Your task to perform on an android device: turn off priority inbox in the gmail app Image 0: 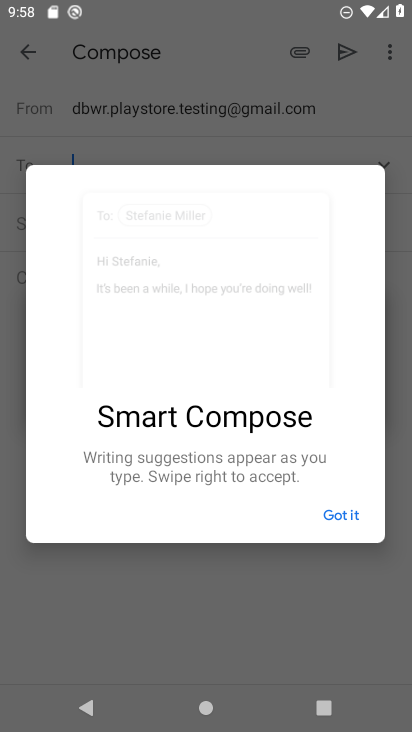
Step 0: press home button
Your task to perform on an android device: turn off priority inbox in the gmail app Image 1: 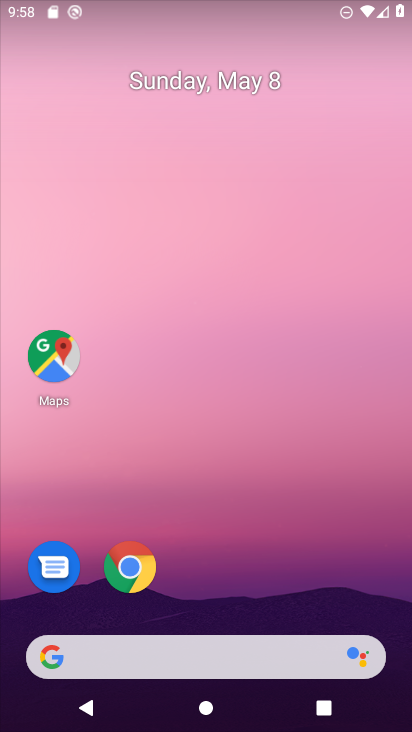
Step 1: drag from (236, 636) to (244, 284)
Your task to perform on an android device: turn off priority inbox in the gmail app Image 2: 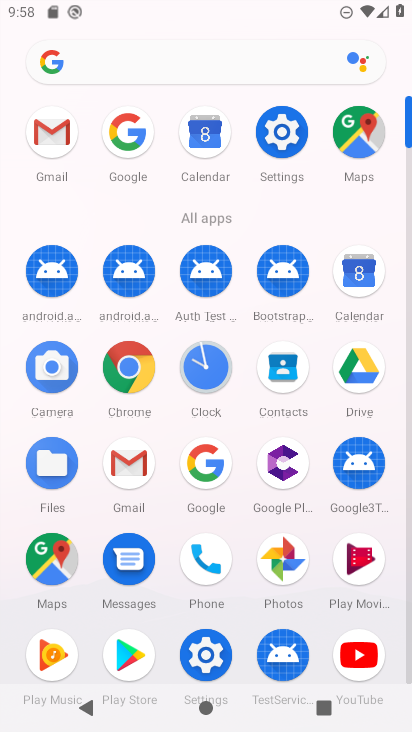
Step 2: click (52, 144)
Your task to perform on an android device: turn off priority inbox in the gmail app Image 3: 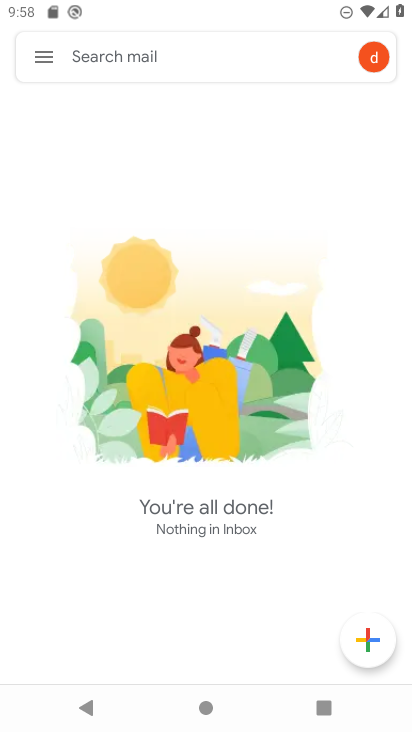
Step 3: click (44, 59)
Your task to perform on an android device: turn off priority inbox in the gmail app Image 4: 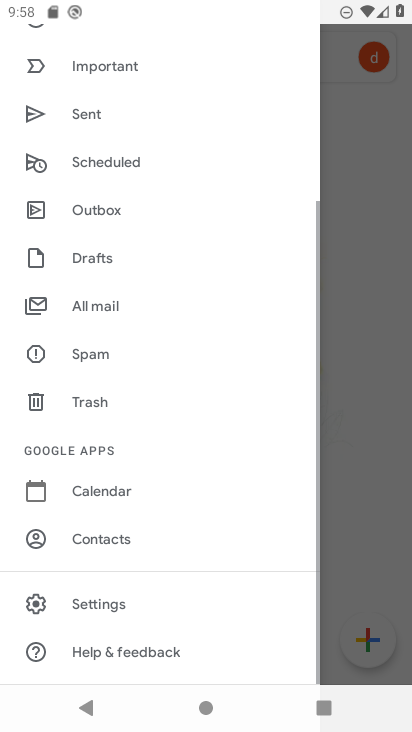
Step 4: click (131, 605)
Your task to perform on an android device: turn off priority inbox in the gmail app Image 5: 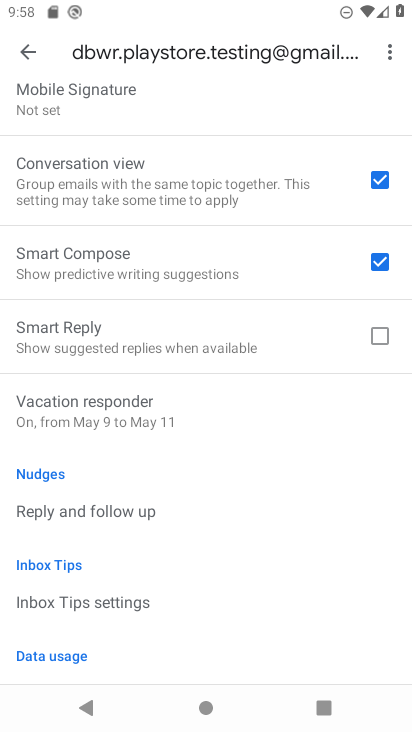
Step 5: drag from (138, 127) to (159, 474)
Your task to perform on an android device: turn off priority inbox in the gmail app Image 6: 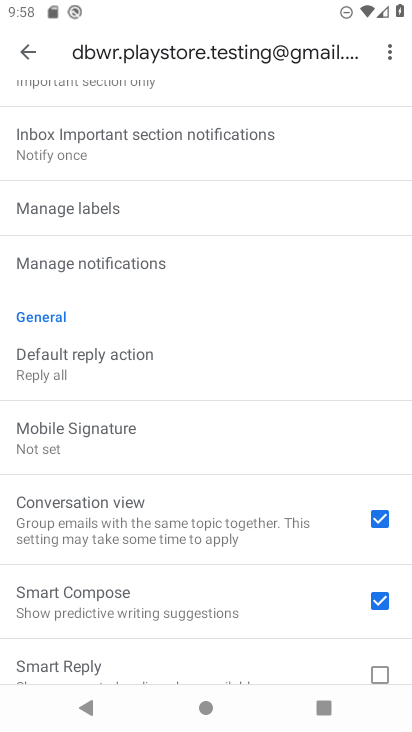
Step 6: drag from (136, 129) to (239, 450)
Your task to perform on an android device: turn off priority inbox in the gmail app Image 7: 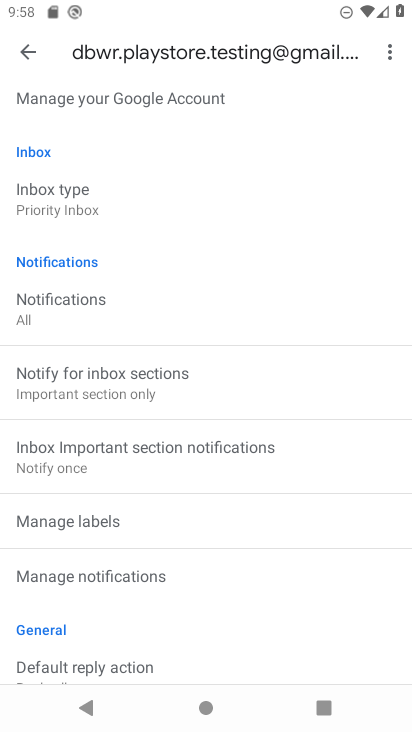
Step 7: click (93, 194)
Your task to perform on an android device: turn off priority inbox in the gmail app Image 8: 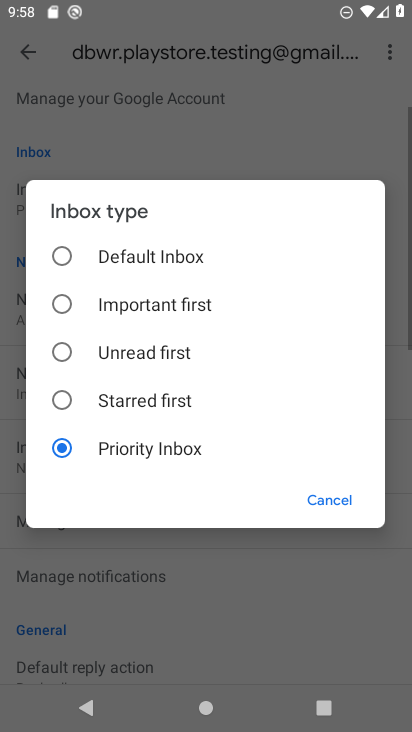
Step 8: click (100, 250)
Your task to perform on an android device: turn off priority inbox in the gmail app Image 9: 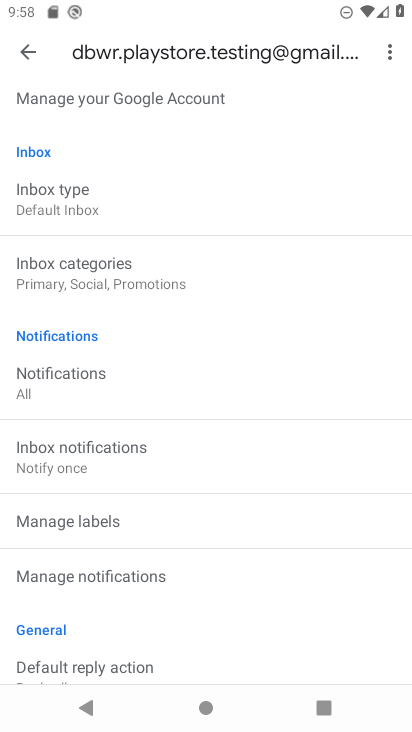
Step 9: task complete